Your task to perform on an android device: add a contact in the contacts app Image 0: 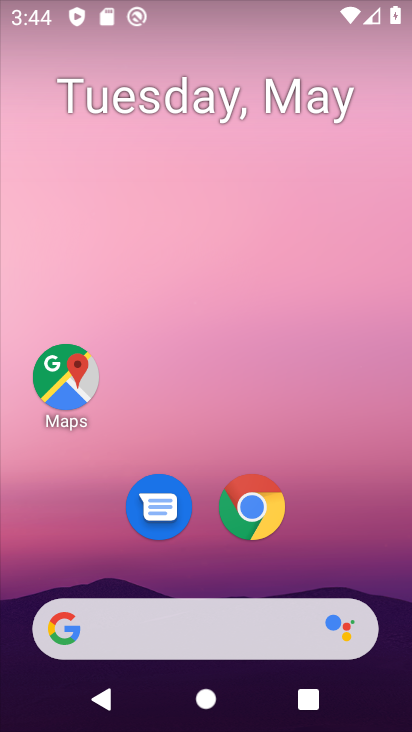
Step 0: drag from (349, 546) to (389, 8)
Your task to perform on an android device: add a contact in the contacts app Image 1: 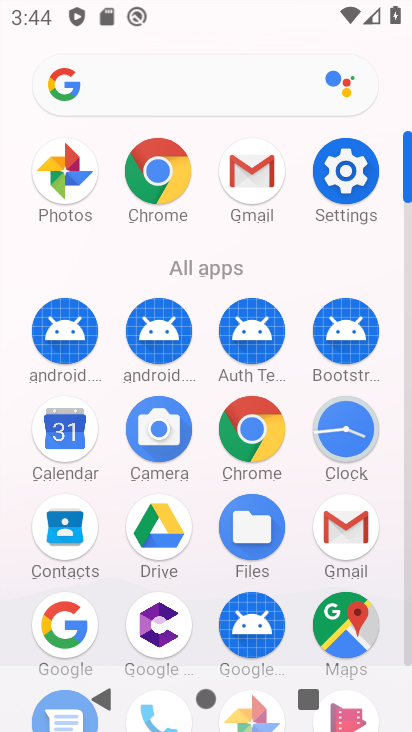
Step 1: click (63, 529)
Your task to perform on an android device: add a contact in the contacts app Image 2: 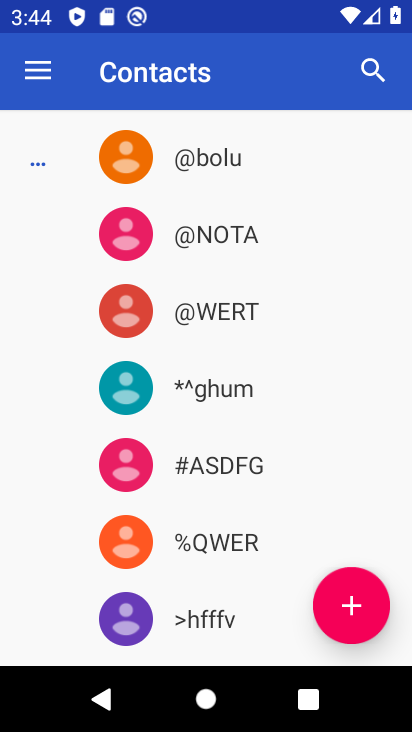
Step 2: click (356, 600)
Your task to perform on an android device: add a contact in the contacts app Image 3: 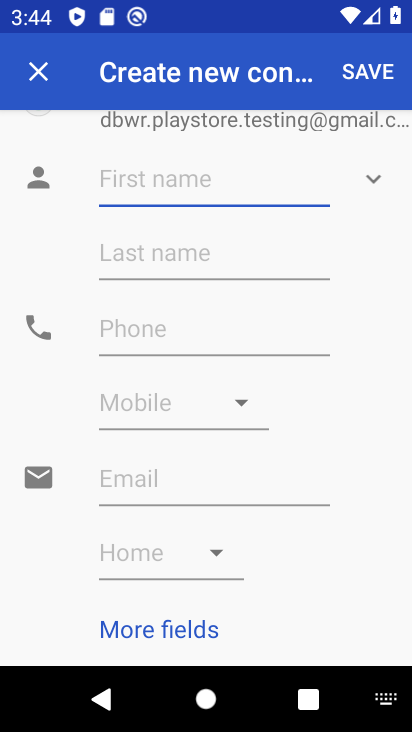
Step 3: type "uuuu"
Your task to perform on an android device: add a contact in the contacts app Image 4: 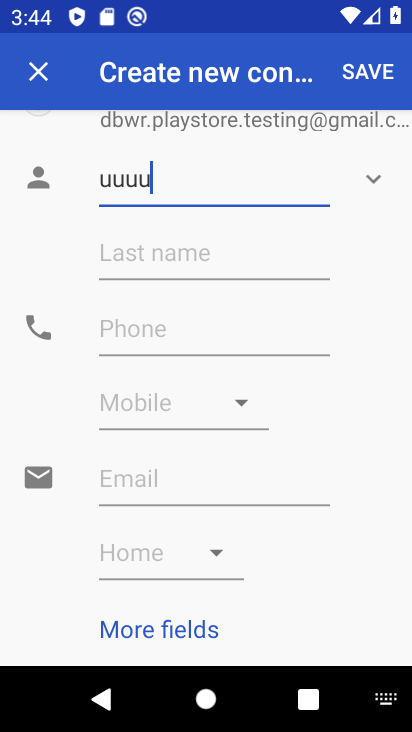
Step 4: click (382, 81)
Your task to perform on an android device: add a contact in the contacts app Image 5: 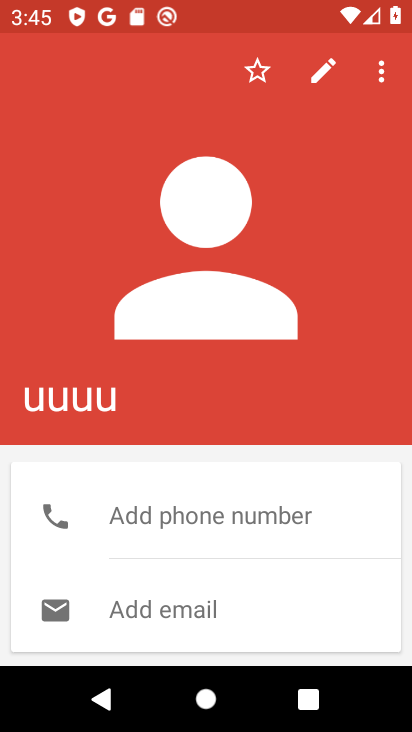
Step 5: task complete